Your task to perform on an android device: find photos in the google photos app Image 0: 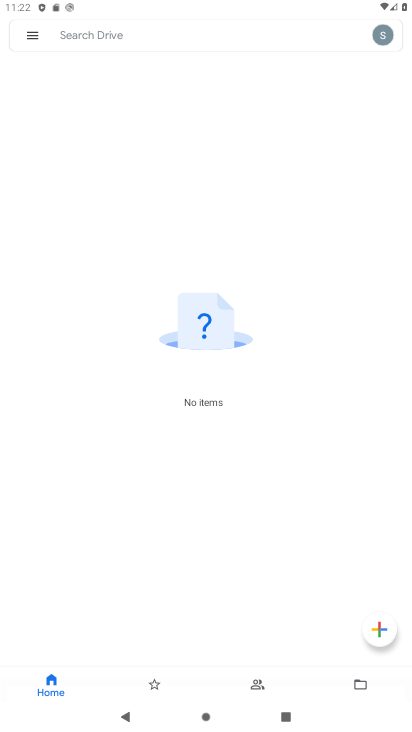
Step 0: press home button
Your task to perform on an android device: find photos in the google photos app Image 1: 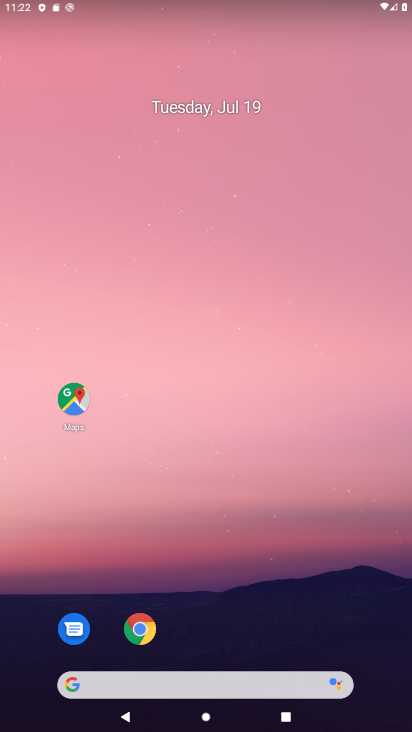
Step 1: drag from (280, 553) to (291, 96)
Your task to perform on an android device: find photos in the google photos app Image 2: 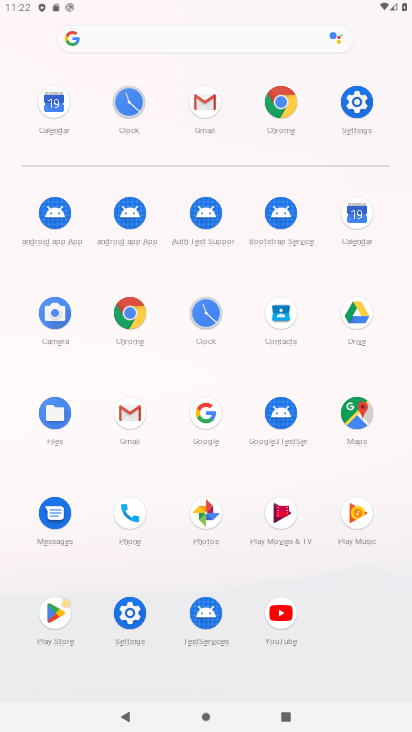
Step 2: click (212, 516)
Your task to perform on an android device: find photos in the google photos app Image 3: 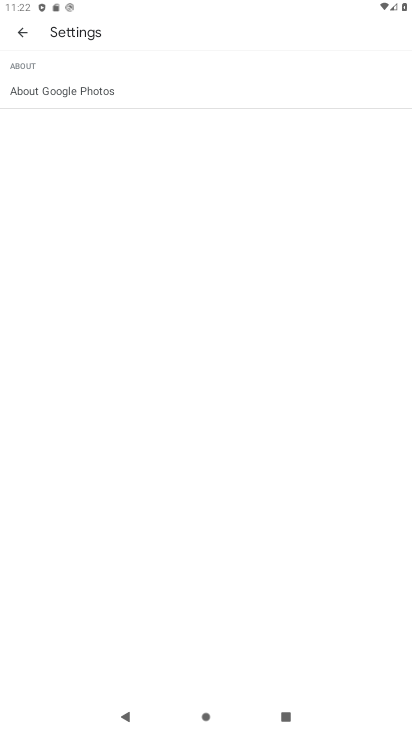
Step 3: click (25, 33)
Your task to perform on an android device: find photos in the google photos app Image 4: 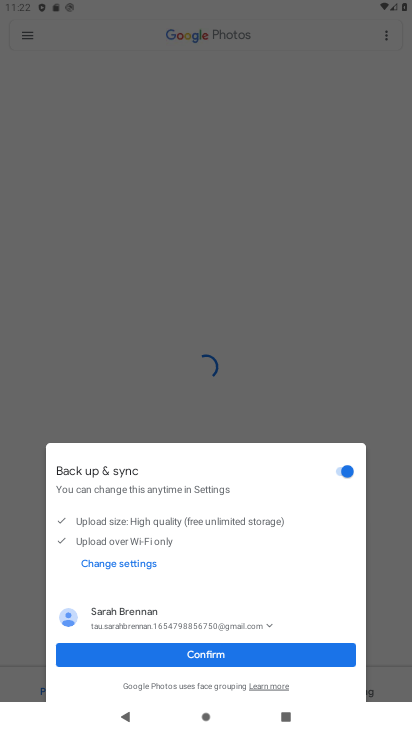
Step 4: click (243, 652)
Your task to perform on an android device: find photos in the google photos app Image 5: 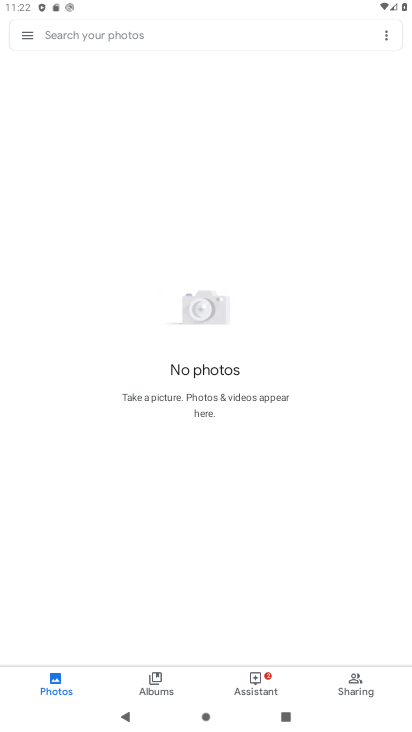
Step 5: task complete